Your task to perform on an android device: set an alarm Image 0: 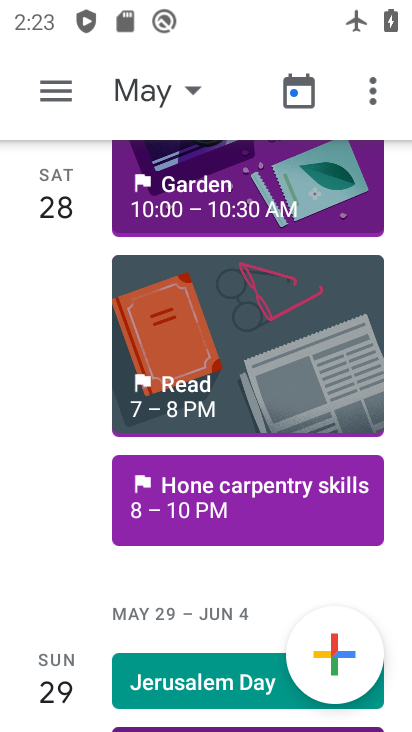
Step 0: press home button
Your task to perform on an android device: set an alarm Image 1: 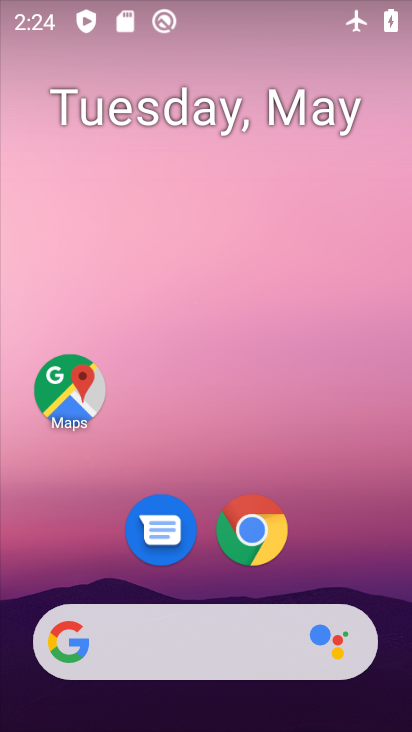
Step 1: drag from (205, 546) to (180, 196)
Your task to perform on an android device: set an alarm Image 2: 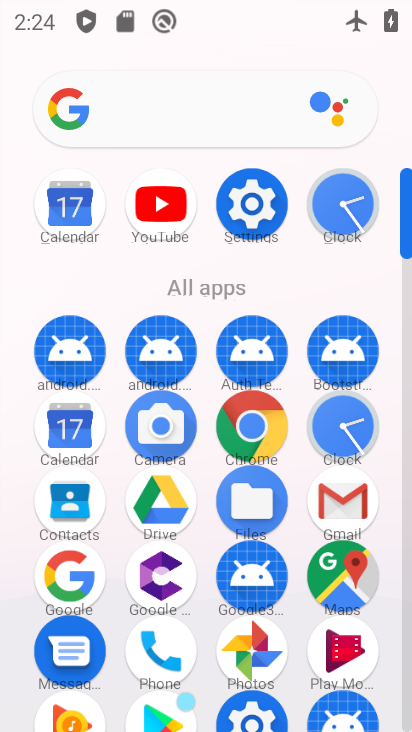
Step 2: click (361, 208)
Your task to perform on an android device: set an alarm Image 3: 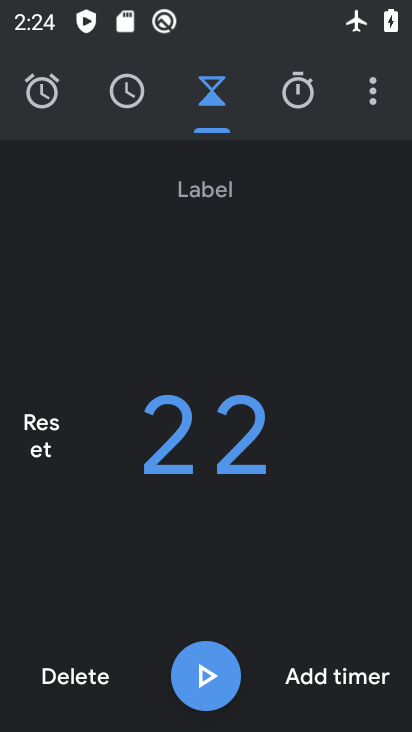
Step 3: click (38, 108)
Your task to perform on an android device: set an alarm Image 4: 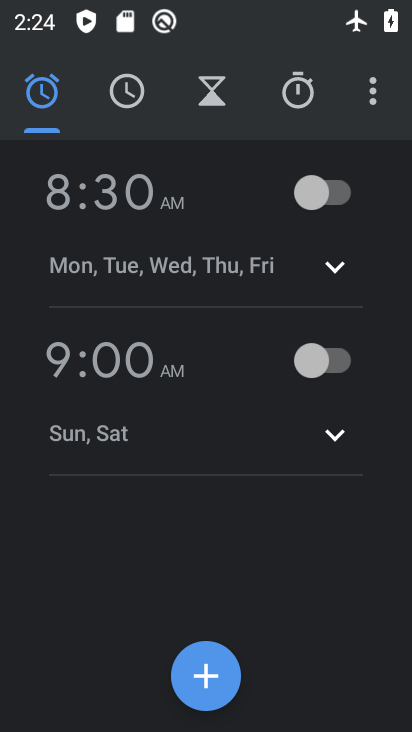
Step 4: click (327, 198)
Your task to perform on an android device: set an alarm Image 5: 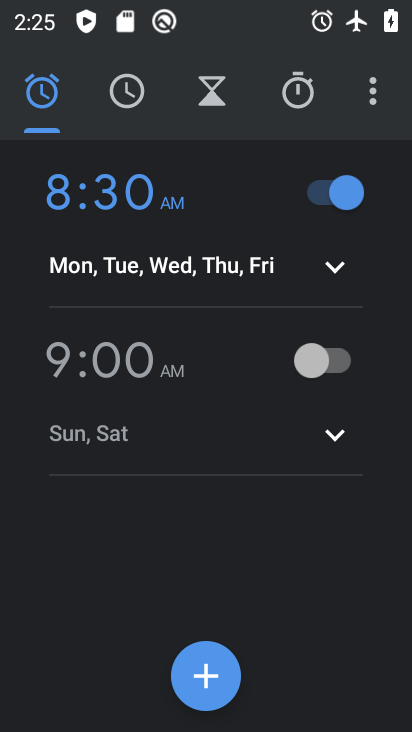
Step 5: task complete